Your task to perform on an android device: allow cookies in the chrome app Image 0: 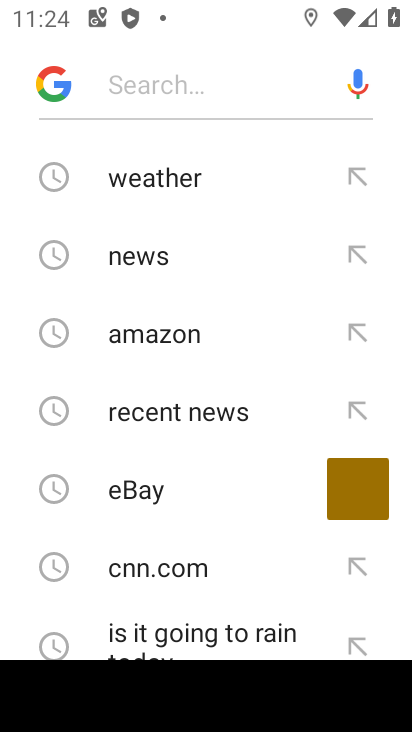
Step 0: press home button
Your task to perform on an android device: allow cookies in the chrome app Image 1: 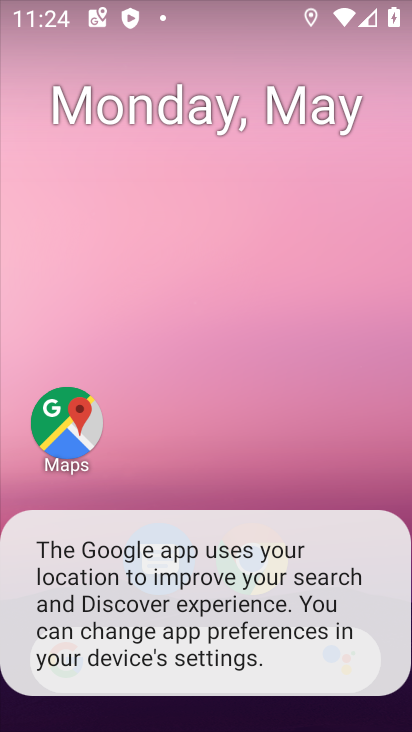
Step 1: click (228, 540)
Your task to perform on an android device: allow cookies in the chrome app Image 2: 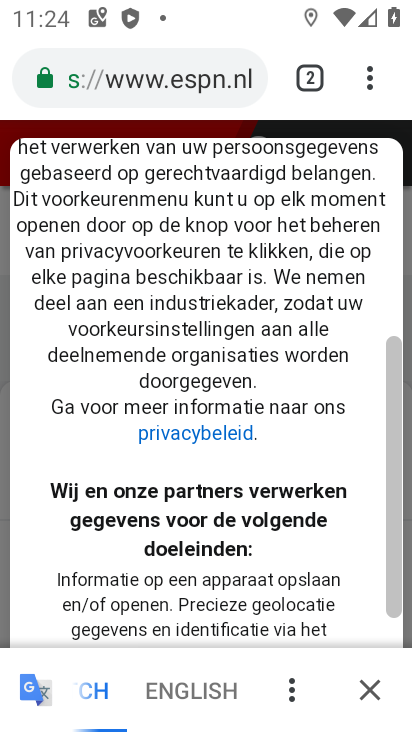
Step 2: drag from (366, 79) to (127, 621)
Your task to perform on an android device: allow cookies in the chrome app Image 3: 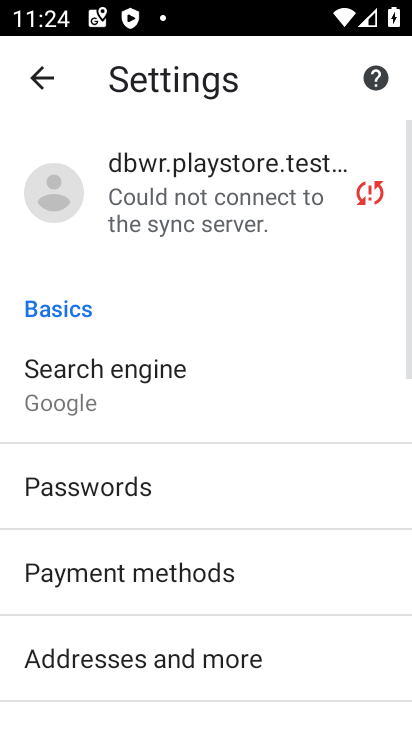
Step 3: drag from (181, 622) to (205, 207)
Your task to perform on an android device: allow cookies in the chrome app Image 4: 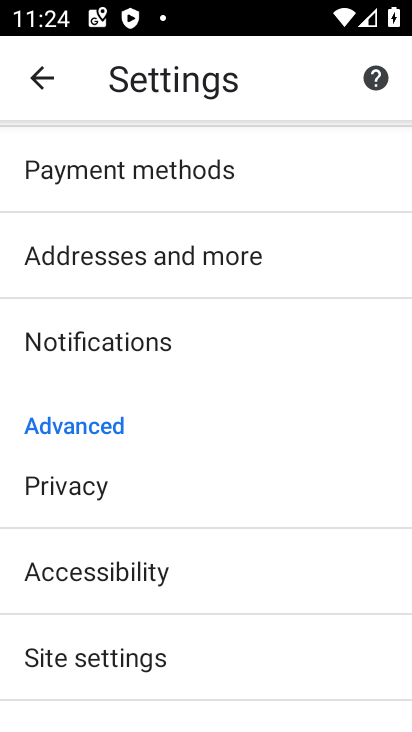
Step 4: click (158, 664)
Your task to perform on an android device: allow cookies in the chrome app Image 5: 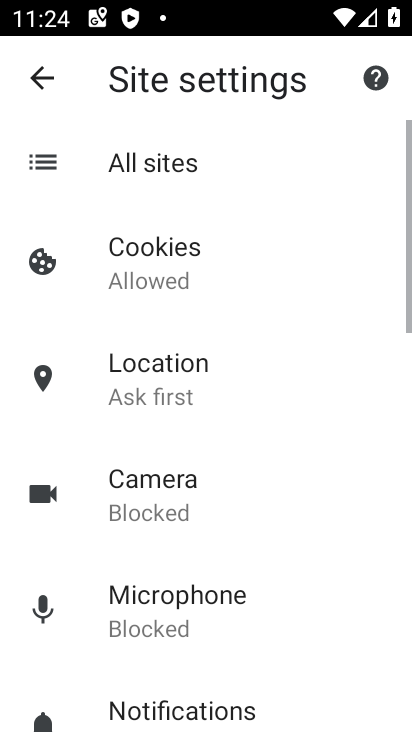
Step 5: click (156, 261)
Your task to perform on an android device: allow cookies in the chrome app Image 6: 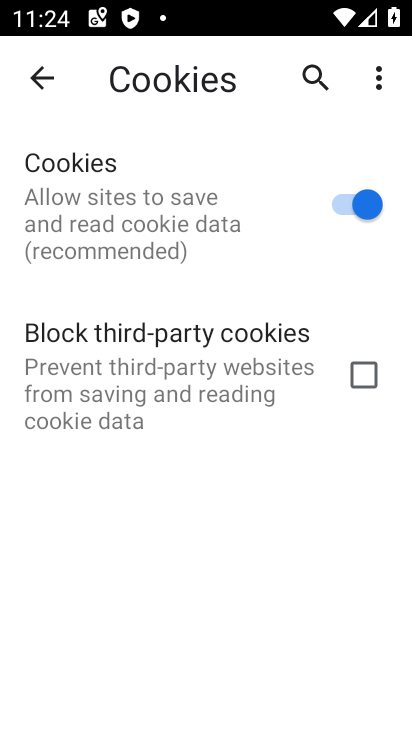
Step 6: task complete